Your task to perform on an android device: turn vacation reply on in the gmail app Image 0: 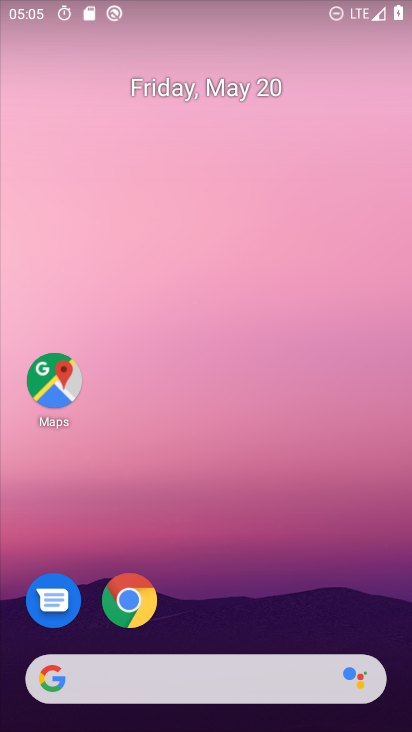
Step 0: drag from (274, 613) to (372, 65)
Your task to perform on an android device: turn vacation reply on in the gmail app Image 1: 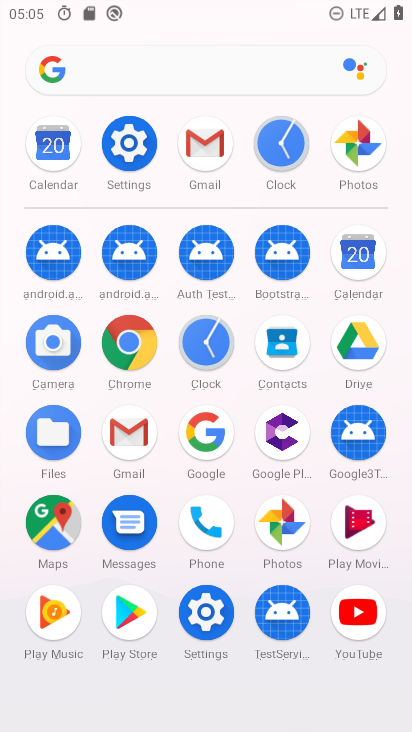
Step 1: click (216, 149)
Your task to perform on an android device: turn vacation reply on in the gmail app Image 2: 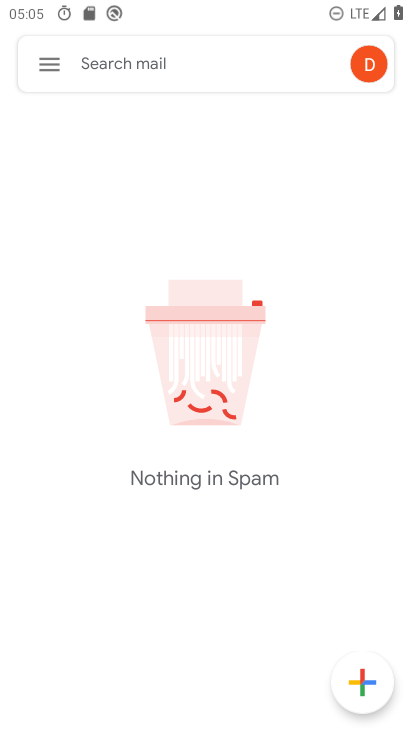
Step 2: click (61, 85)
Your task to perform on an android device: turn vacation reply on in the gmail app Image 3: 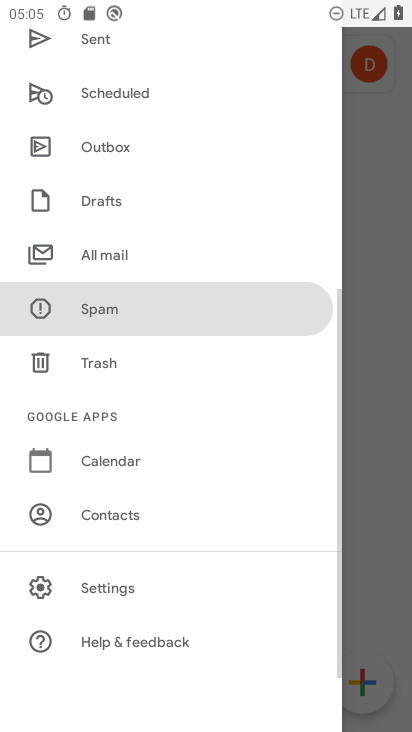
Step 3: click (143, 579)
Your task to perform on an android device: turn vacation reply on in the gmail app Image 4: 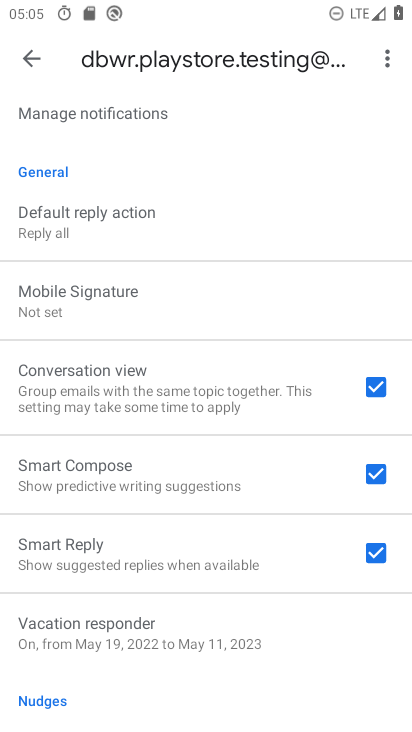
Step 4: click (161, 623)
Your task to perform on an android device: turn vacation reply on in the gmail app Image 5: 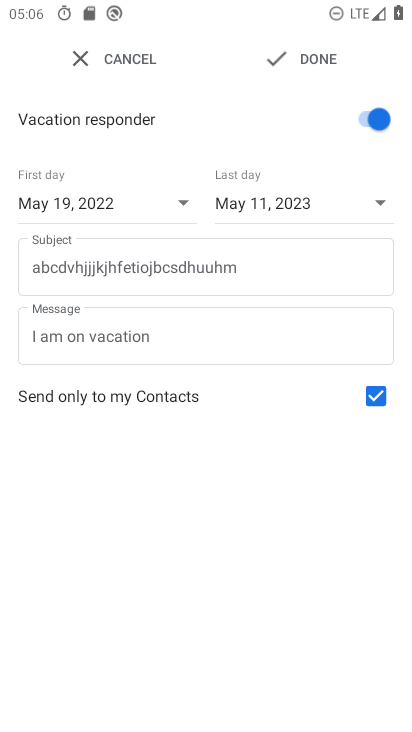
Step 5: task complete